Your task to perform on an android device: Open calendar and show me the first week of next month Image 0: 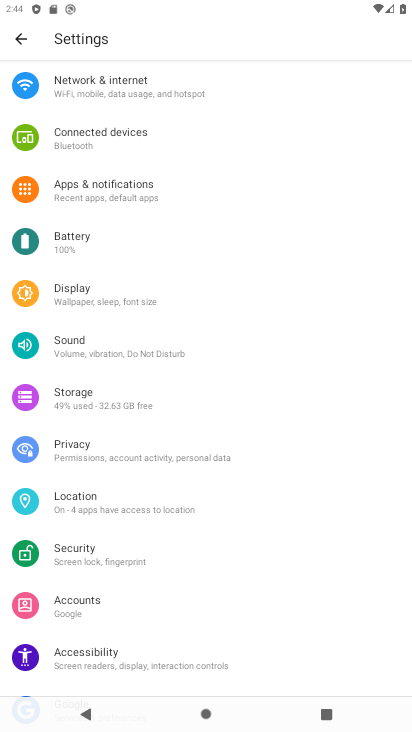
Step 0: press home button
Your task to perform on an android device: Open calendar and show me the first week of next month Image 1: 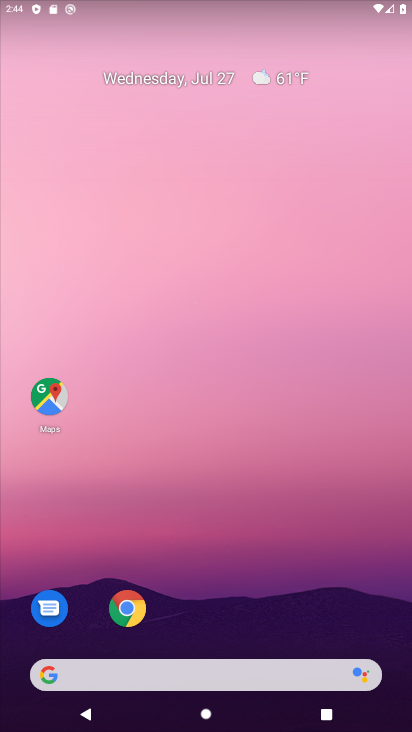
Step 1: drag from (268, 593) to (275, 19)
Your task to perform on an android device: Open calendar and show me the first week of next month Image 2: 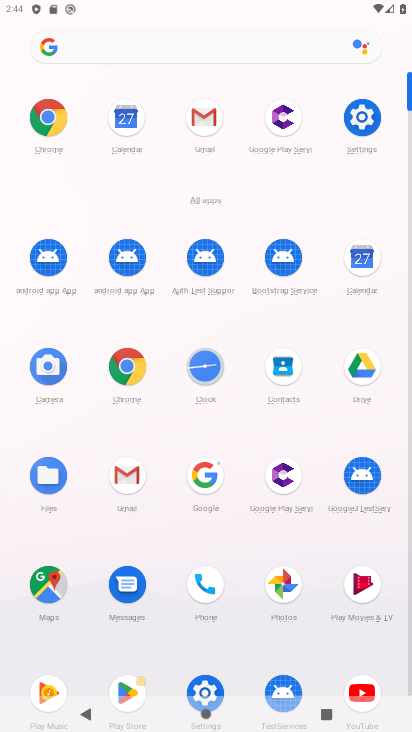
Step 2: click (355, 261)
Your task to perform on an android device: Open calendar and show me the first week of next month Image 3: 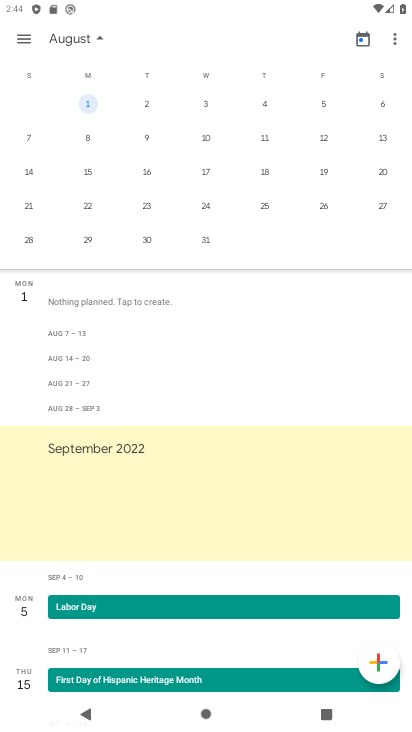
Step 3: task complete